Your task to perform on an android device: see tabs open on other devices in the chrome app Image 0: 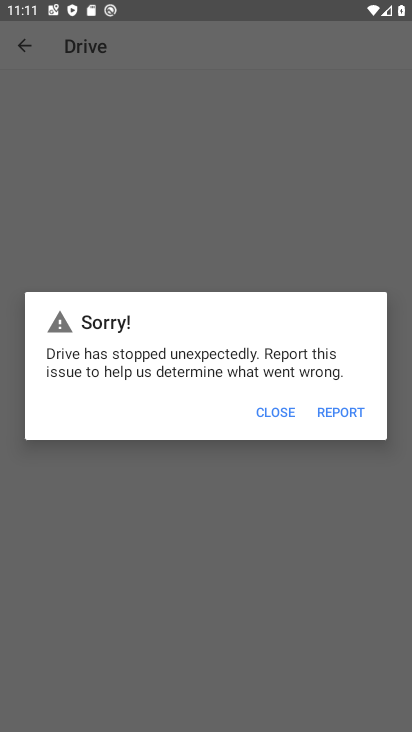
Step 0: press home button
Your task to perform on an android device: see tabs open on other devices in the chrome app Image 1: 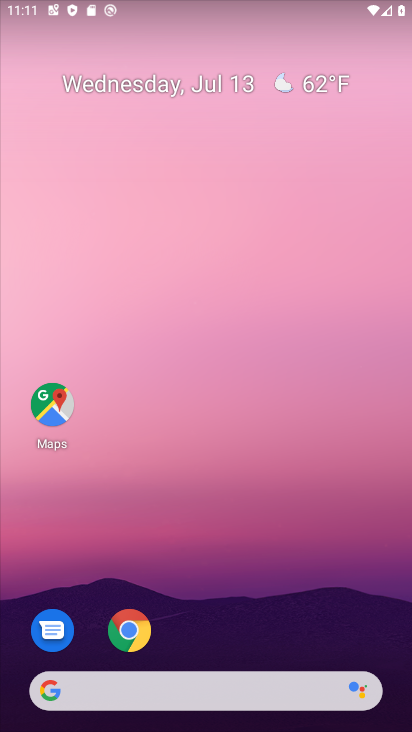
Step 1: drag from (218, 523) to (266, 70)
Your task to perform on an android device: see tabs open on other devices in the chrome app Image 2: 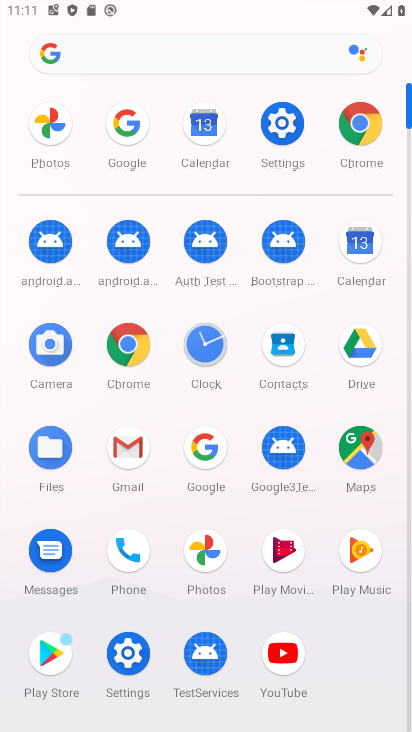
Step 2: click (363, 124)
Your task to perform on an android device: see tabs open on other devices in the chrome app Image 3: 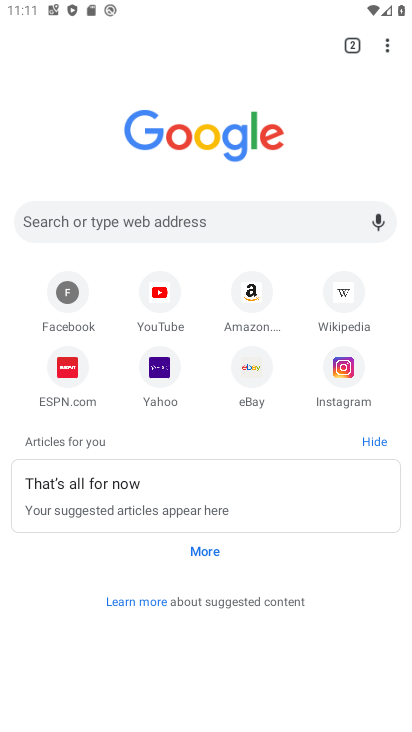
Step 3: task complete